Your task to perform on an android device: choose inbox layout in the gmail app Image 0: 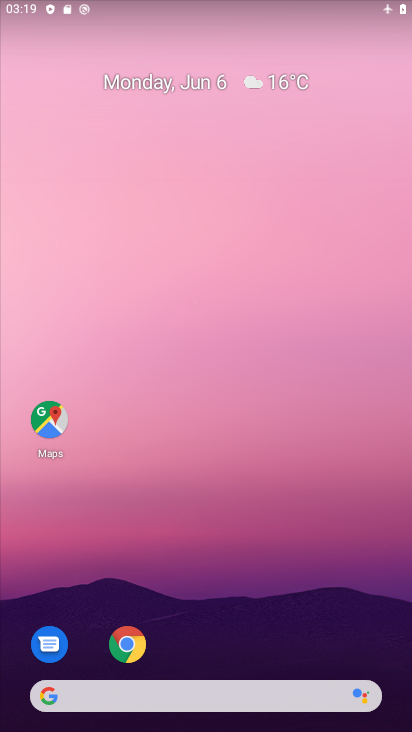
Step 0: drag from (251, 612) to (355, 178)
Your task to perform on an android device: choose inbox layout in the gmail app Image 1: 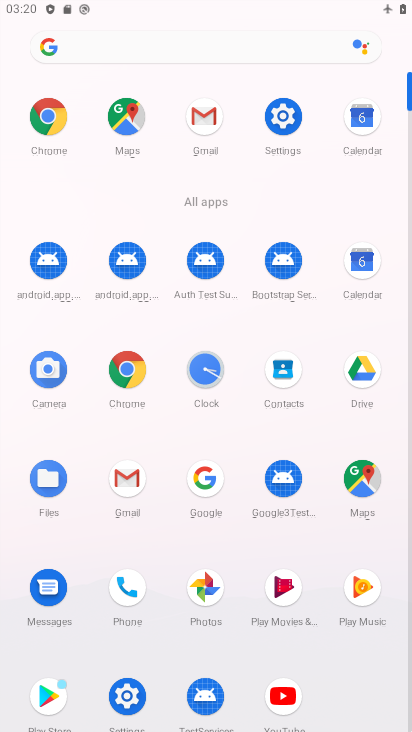
Step 1: click (116, 488)
Your task to perform on an android device: choose inbox layout in the gmail app Image 2: 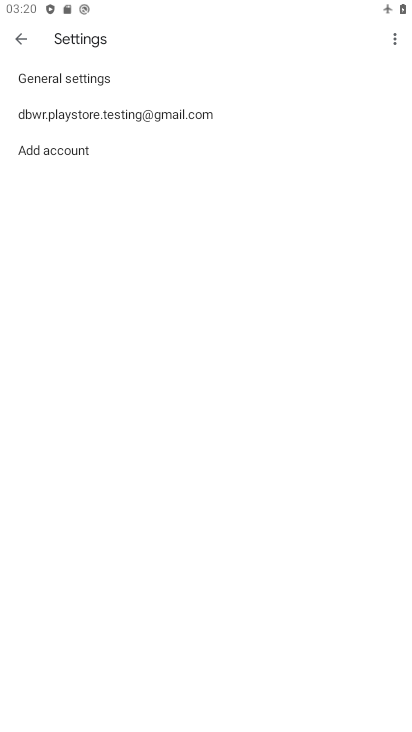
Step 2: click (94, 112)
Your task to perform on an android device: choose inbox layout in the gmail app Image 3: 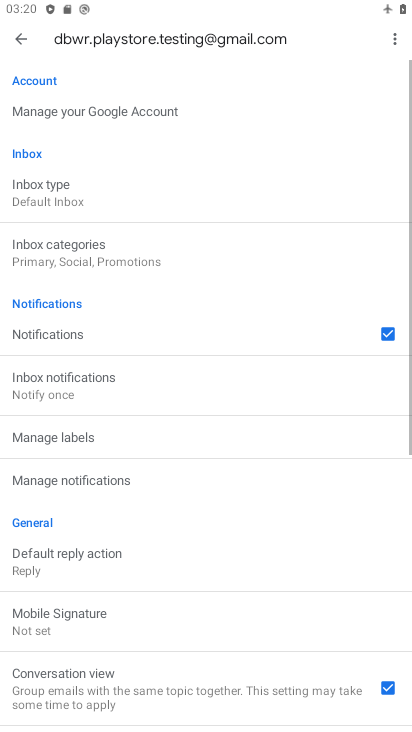
Step 3: click (78, 193)
Your task to perform on an android device: choose inbox layout in the gmail app Image 4: 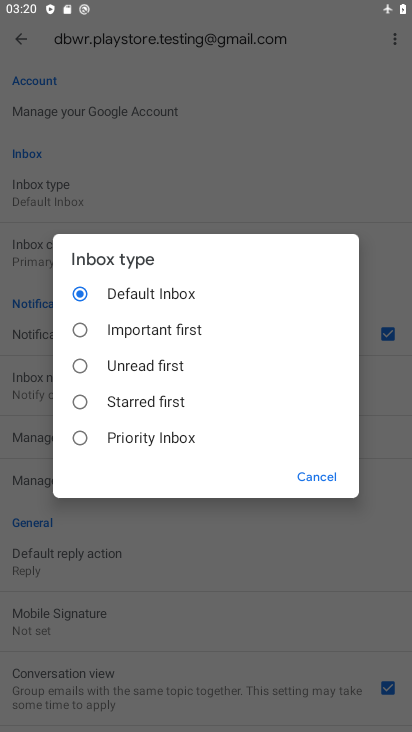
Step 4: click (113, 371)
Your task to perform on an android device: choose inbox layout in the gmail app Image 5: 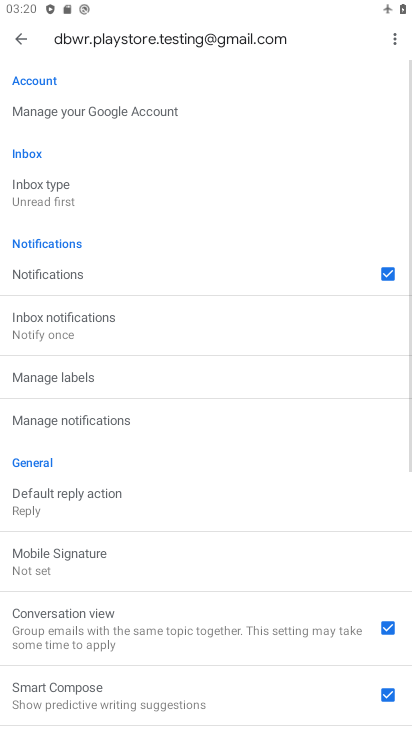
Step 5: task complete